Your task to perform on an android device: turn on bluetooth scan Image 0: 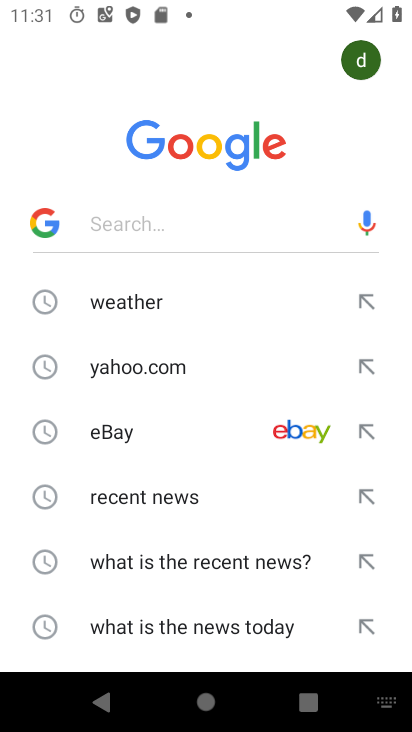
Step 0: press home button
Your task to perform on an android device: turn on bluetooth scan Image 1: 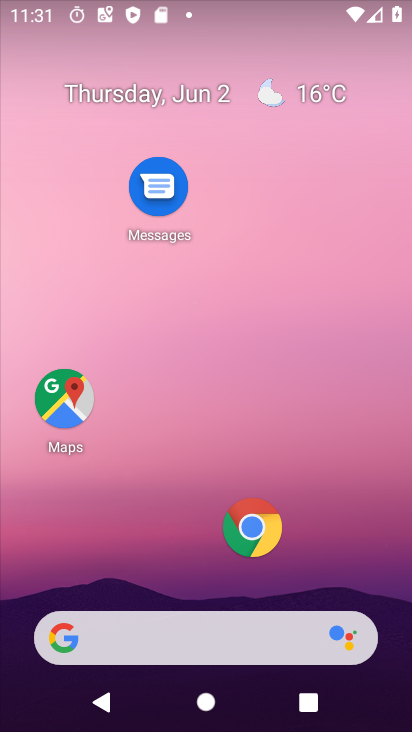
Step 1: drag from (197, 591) to (240, 50)
Your task to perform on an android device: turn on bluetooth scan Image 2: 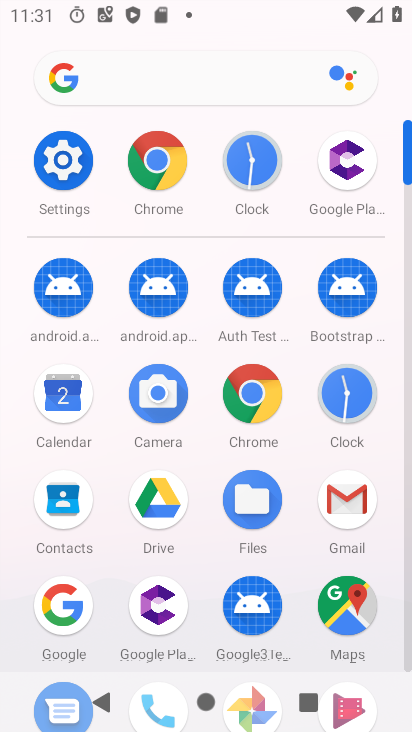
Step 2: click (62, 155)
Your task to perform on an android device: turn on bluetooth scan Image 3: 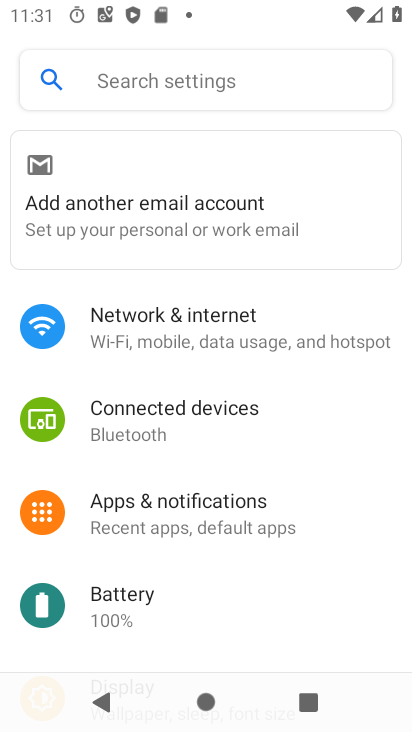
Step 3: drag from (236, 625) to (248, 56)
Your task to perform on an android device: turn on bluetooth scan Image 4: 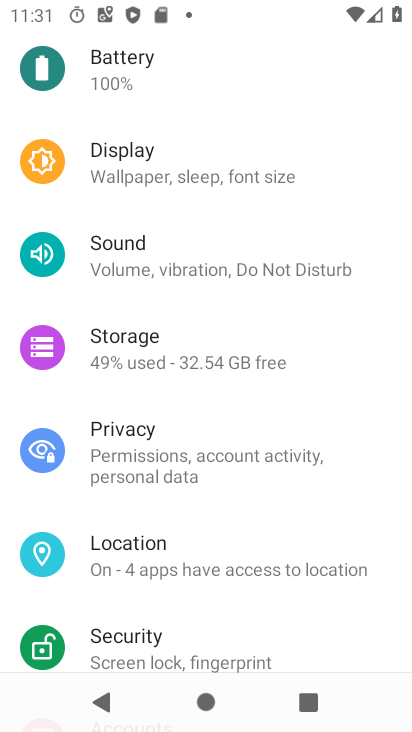
Step 4: click (209, 546)
Your task to perform on an android device: turn on bluetooth scan Image 5: 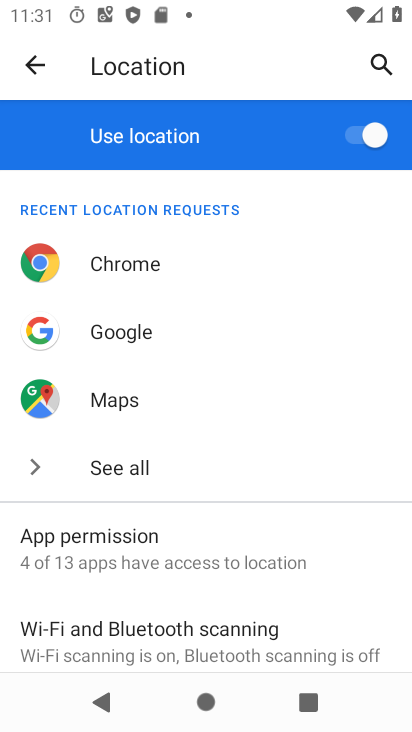
Step 5: click (299, 630)
Your task to perform on an android device: turn on bluetooth scan Image 6: 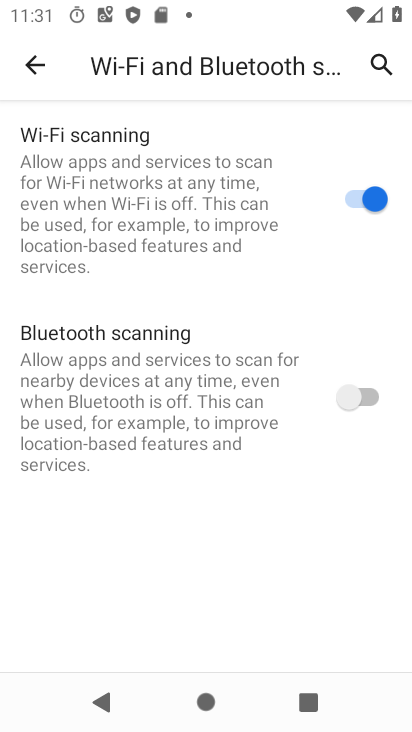
Step 6: click (360, 389)
Your task to perform on an android device: turn on bluetooth scan Image 7: 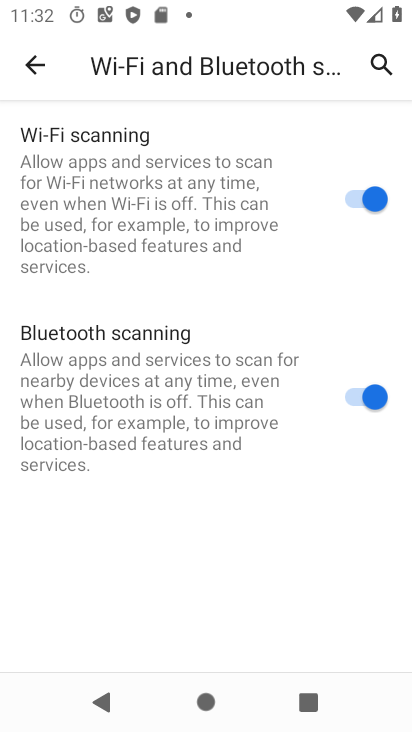
Step 7: task complete